Your task to perform on an android device: Turn off the flashlight Image 0: 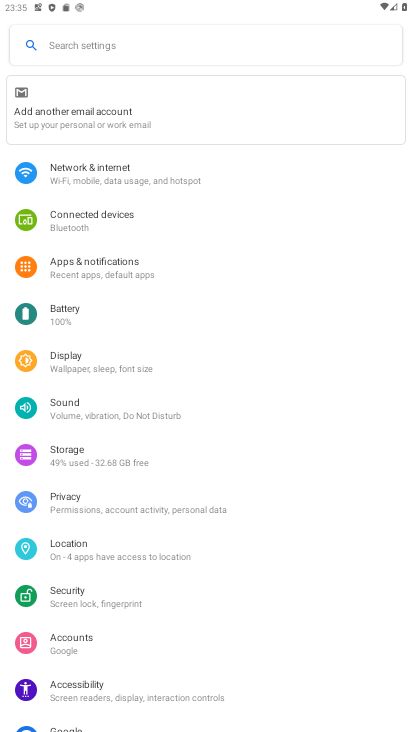
Step 0: task impossible